Your task to perform on an android device: See recent photos Image 0: 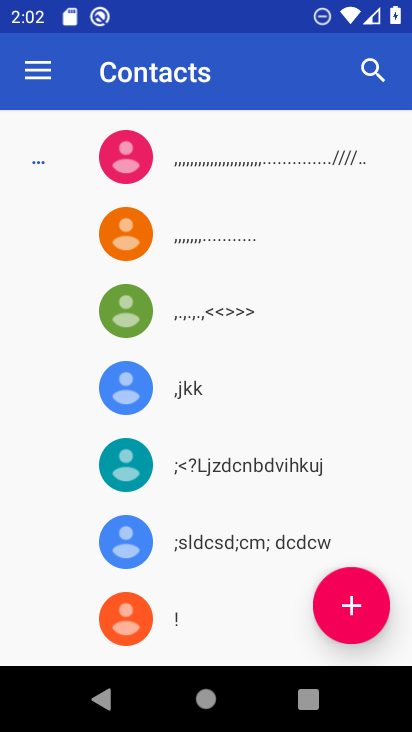
Step 0: press home button
Your task to perform on an android device: See recent photos Image 1: 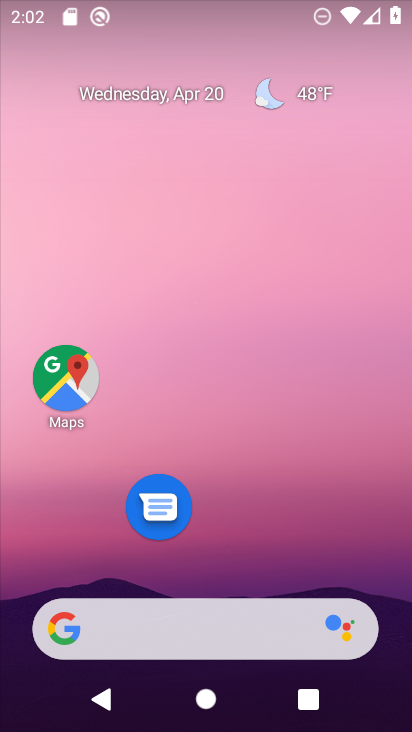
Step 1: drag from (207, 726) to (202, 55)
Your task to perform on an android device: See recent photos Image 2: 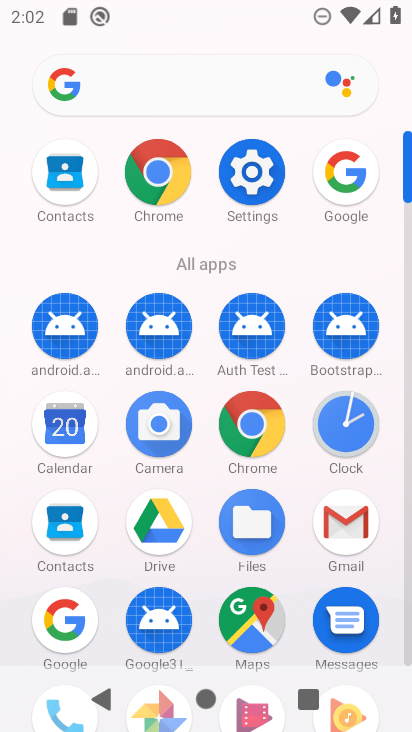
Step 2: drag from (216, 579) to (192, 182)
Your task to perform on an android device: See recent photos Image 3: 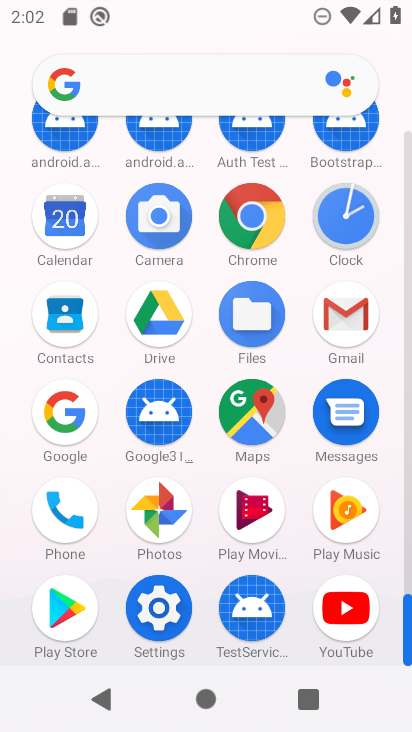
Step 3: click (158, 506)
Your task to perform on an android device: See recent photos Image 4: 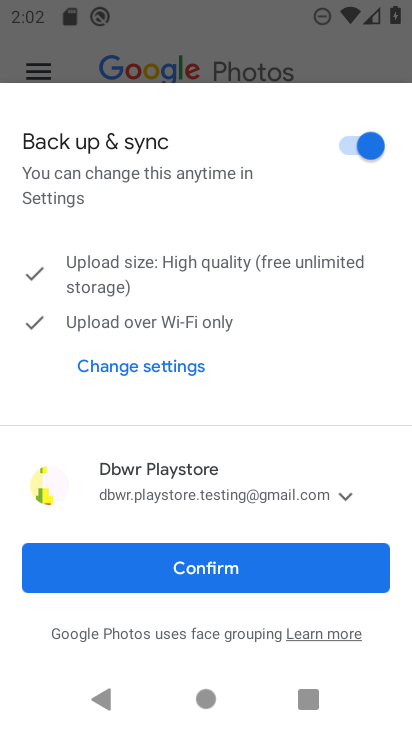
Step 4: click (178, 572)
Your task to perform on an android device: See recent photos Image 5: 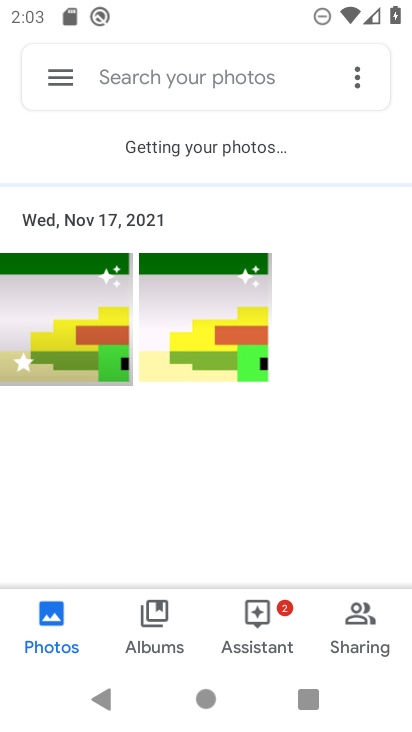
Step 5: click (70, 342)
Your task to perform on an android device: See recent photos Image 6: 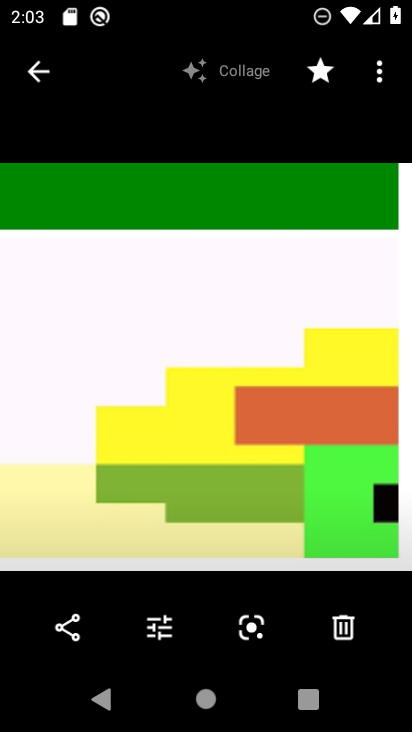
Step 6: task complete